Your task to perform on an android device: toggle javascript in the chrome app Image 0: 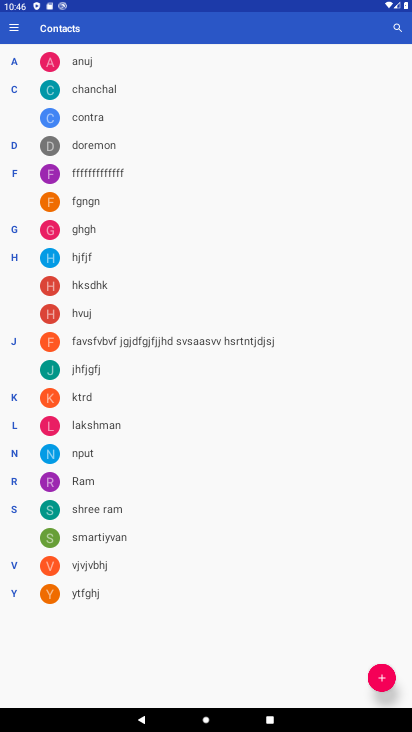
Step 0: press home button
Your task to perform on an android device: toggle javascript in the chrome app Image 1: 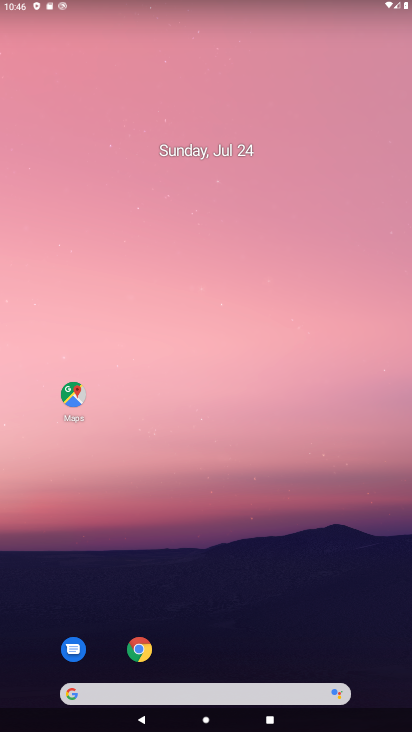
Step 1: click (150, 643)
Your task to perform on an android device: toggle javascript in the chrome app Image 2: 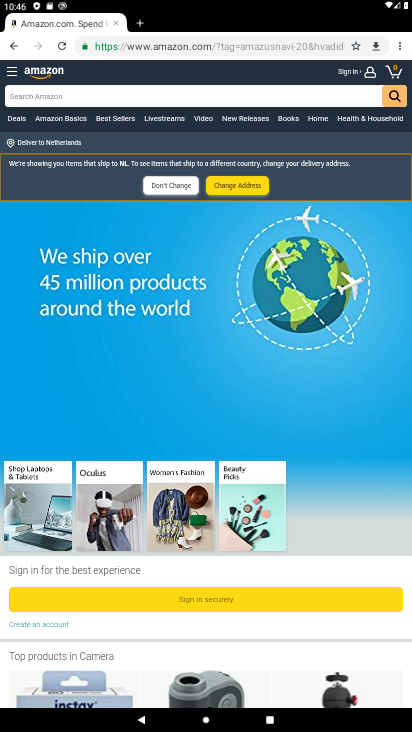
Step 2: drag from (400, 46) to (330, 305)
Your task to perform on an android device: toggle javascript in the chrome app Image 3: 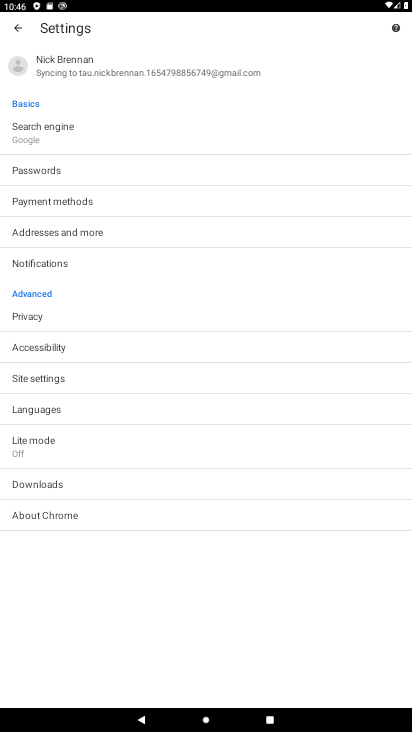
Step 3: click (66, 376)
Your task to perform on an android device: toggle javascript in the chrome app Image 4: 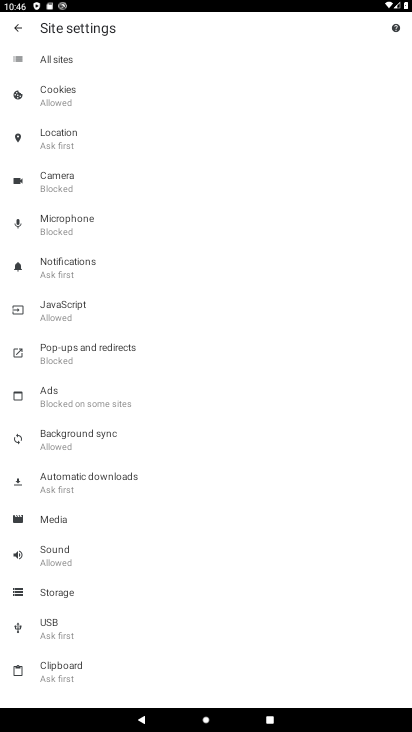
Step 4: click (91, 298)
Your task to perform on an android device: toggle javascript in the chrome app Image 5: 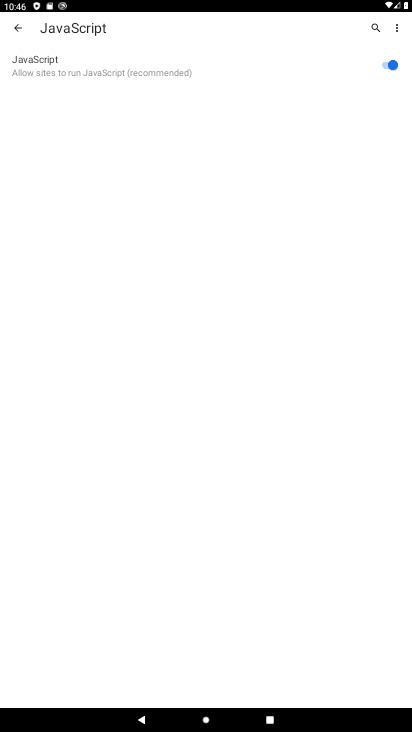
Step 5: click (385, 64)
Your task to perform on an android device: toggle javascript in the chrome app Image 6: 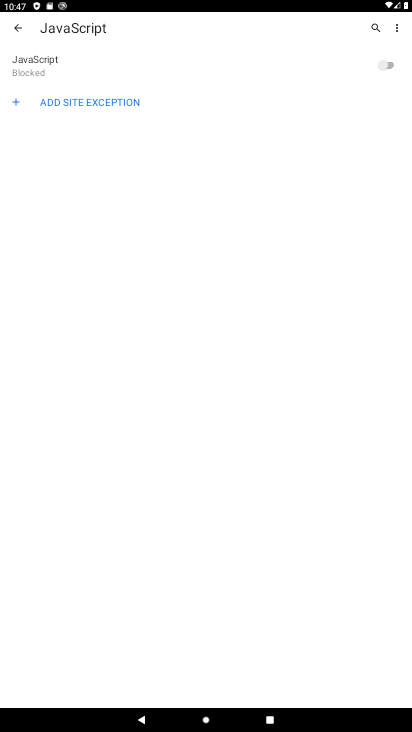
Step 6: task complete